Your task to perform on an android device: turn on location history Image 0: 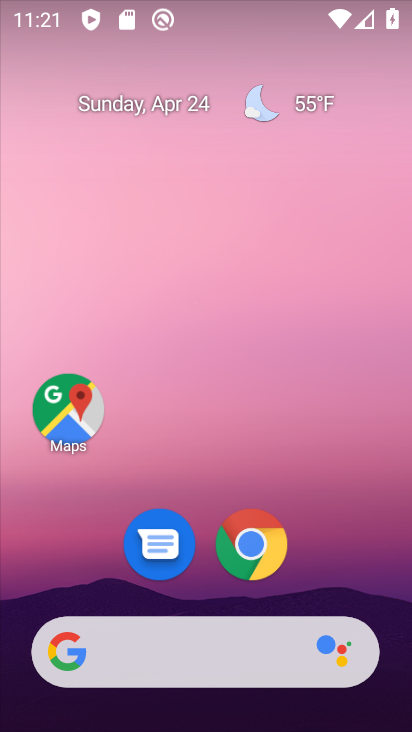
Step 0: drag from (351, 525) to (291, 98)
Your task to perform on an android device: turn on location history Image 1: 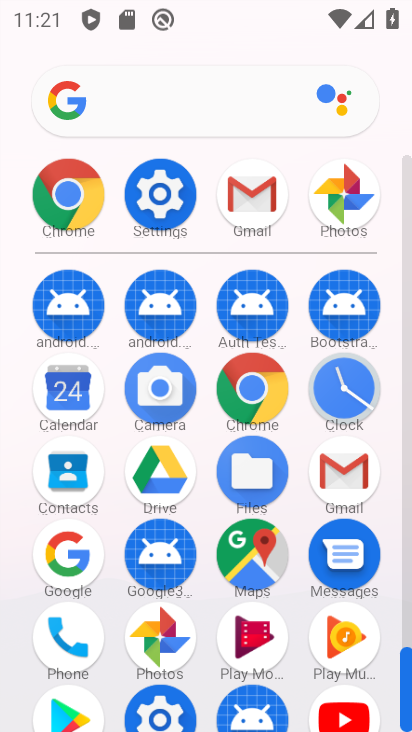
Step 1: click (170, 170)
Your task to perform on an android device: turn on location history Image 2: 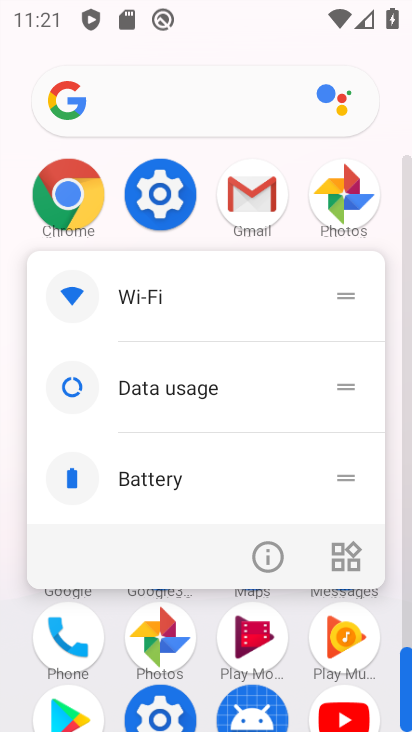
Step 2: click (162, 180)
Your task to perform on an android device: turn on location history Image 3: 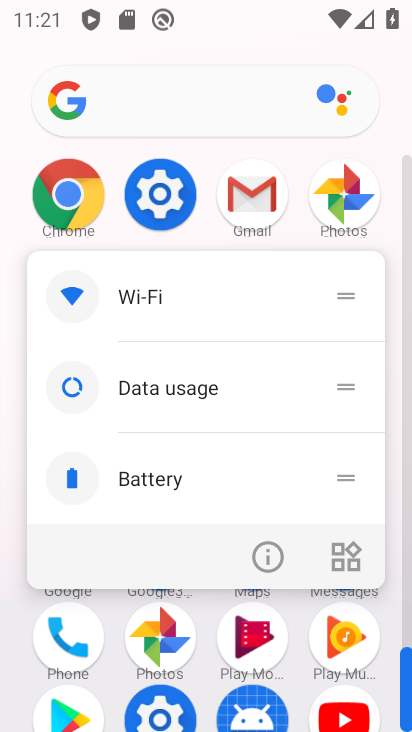
Step 3: click (162, 198)
Your task to perform on an android device: turn on location history Image 4: 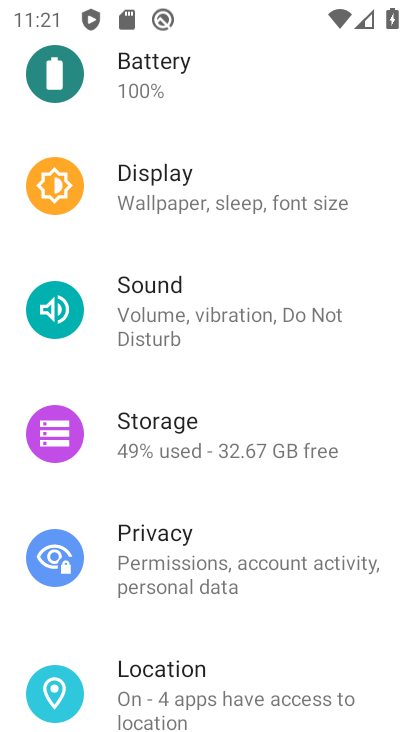
Step 4: click (192, 685)
Your task to perform on an android device: turn on location history Image 5: 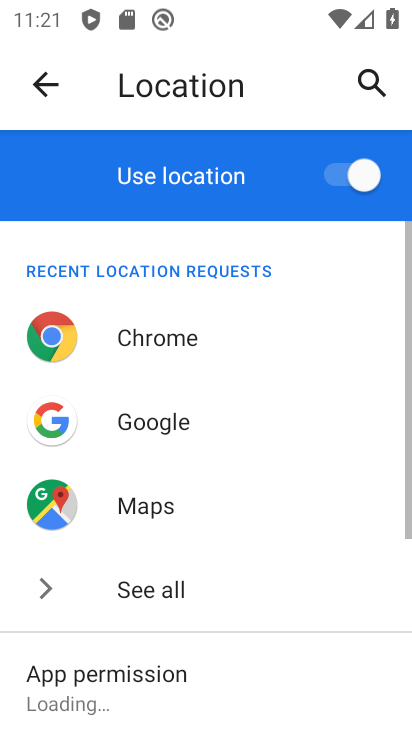
Step 5: drag from (228, 648) to (214, 236)
Your task to perform on an android device: turn on location history Image 6: 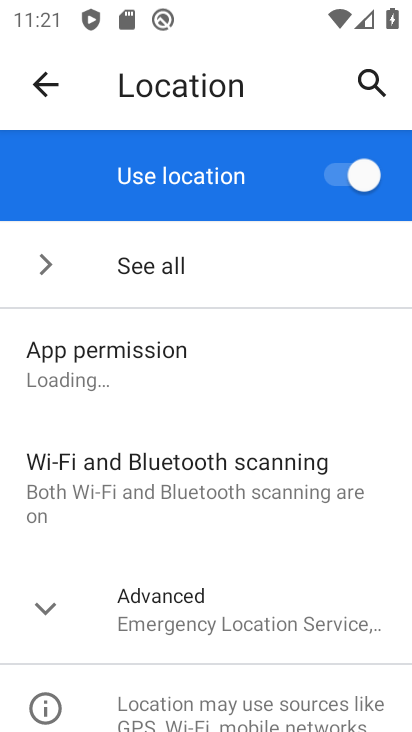
Step 6: click (192, 630)
Your task to perform on an android device: turn on location history Image 7: 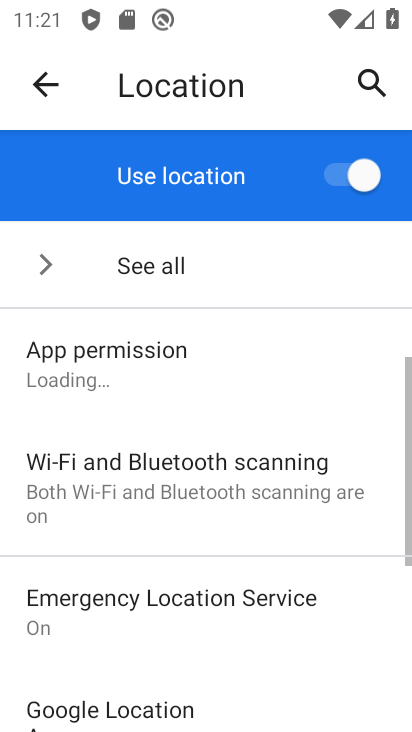
Step 7: task complete